Your task to perform on an android device: Open Youtube and go to "Your channel" Image 0: 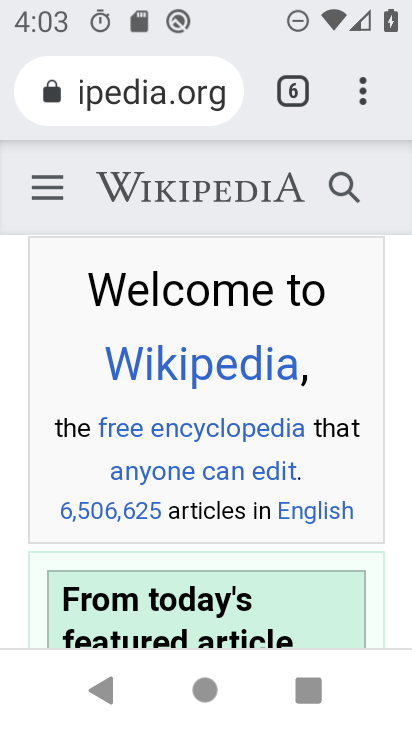
Step 0: press home button
Your task to perform on an android device: Open Youtube and go to "Your channel" Image 1: 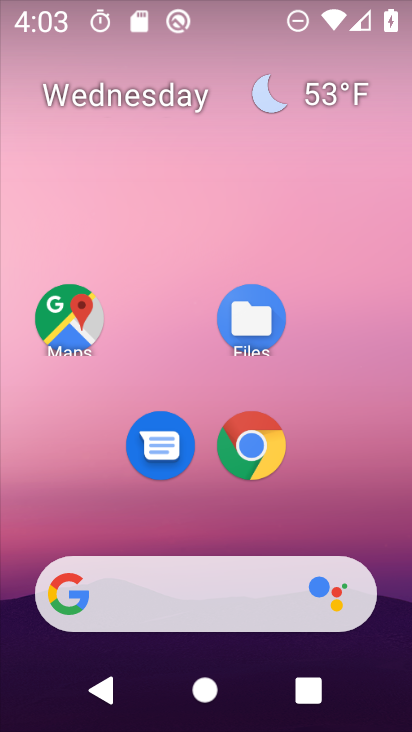
Step 1: drag from (347, 508) to (326, 218)
Your task to perform on an android device: Open Youtube and go to "Your channel" Image 2: 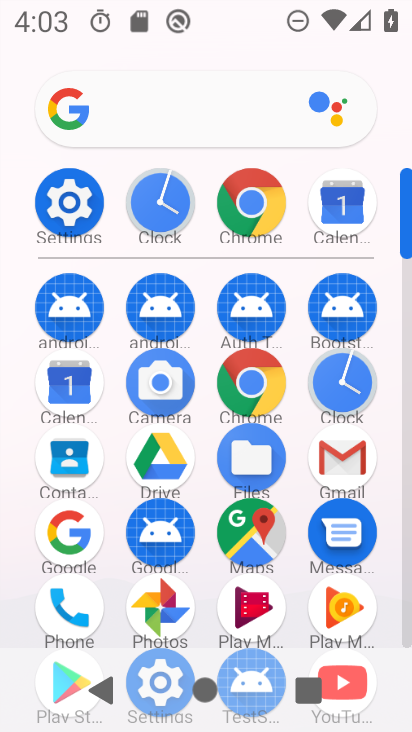
Step 2: click (321, 220)
Your task to perform on an android device: Open Youtube and go to "Your channel" Image 3: 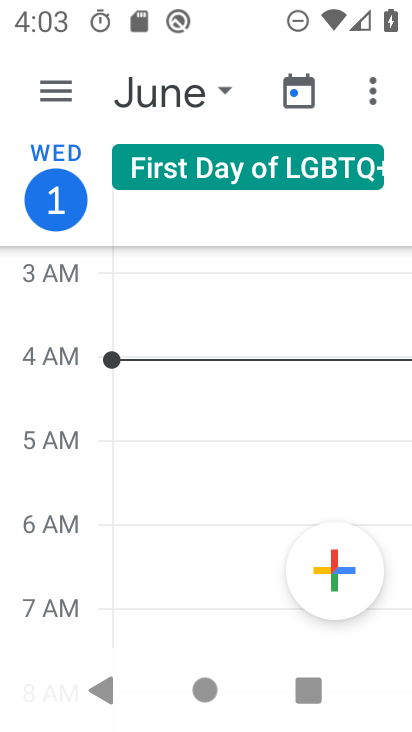
Step 3: press back button
Your task to perform on an android device: Open Youtube and go to "Your channel" Image 4: 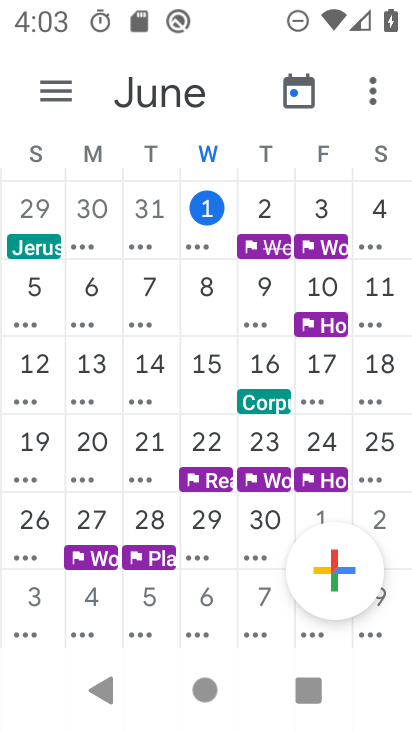
Step 4: press back button
Your task to perform on an android device: Open Youtube and go to "Your channel" Image 5: 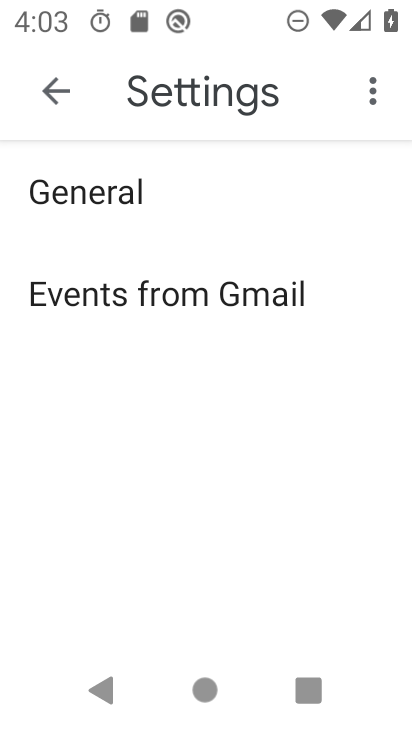
Step 5: press back button
Your task to perform on an android device: Open Youtube and go to "Your channel" Image 6: 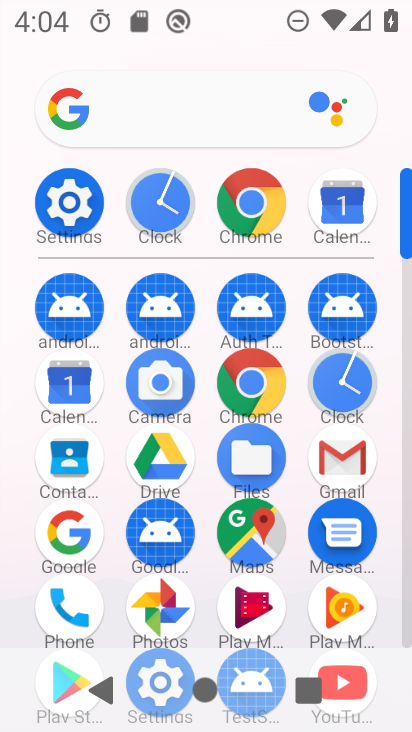
Step 6: click (402, 588)
Your task to perform on an android device: Open Youtube and go to "Your channel" Image 7: 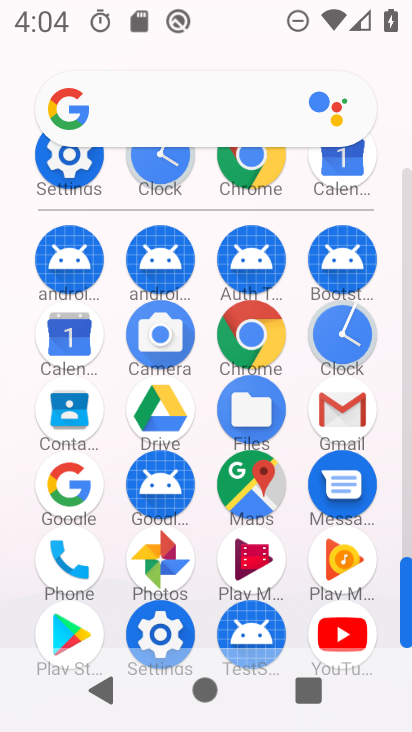
Step 7: click (338, 629)
Your task to perform on an android device: Open Youtube and go to "Your channel" Image 8: 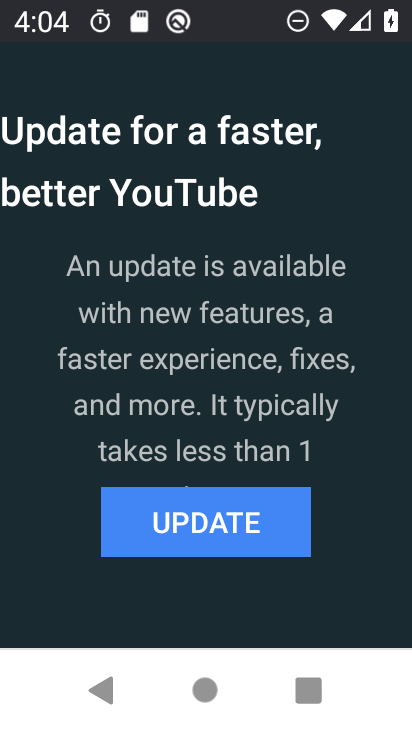
Step 8: click (248, 531)
Your task to perform on an android device: Open Youtube and go to "Your channel" Image 9: 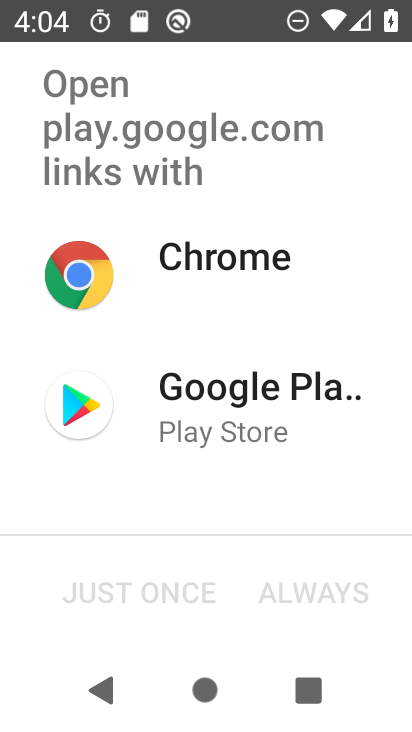
Step 9: click (227, 407)
Your task to perform on an android device: Open Youtube and go to "Your channel" Image 10: 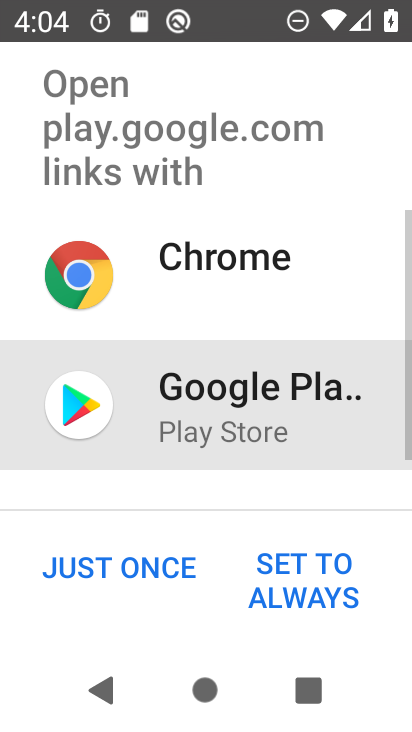
Step 10: click (272, 584)
Your task to perform on an android device: Open Youtube and go to "Your channel" Image 11: 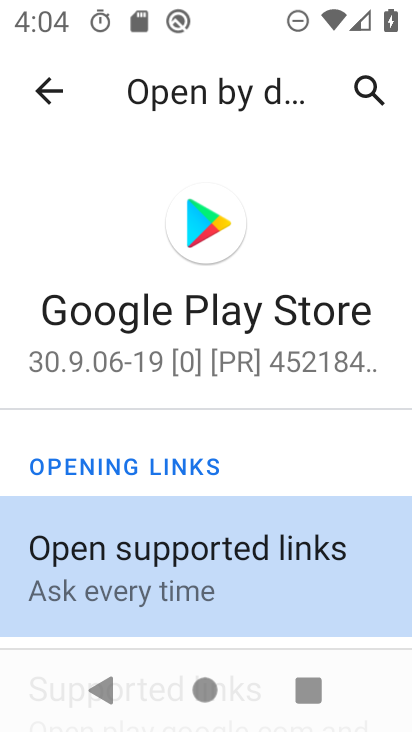
Step 11: click (258, 528)
Your task to perform on an android device: Open Youtube and go to "Your channel" Image 12: 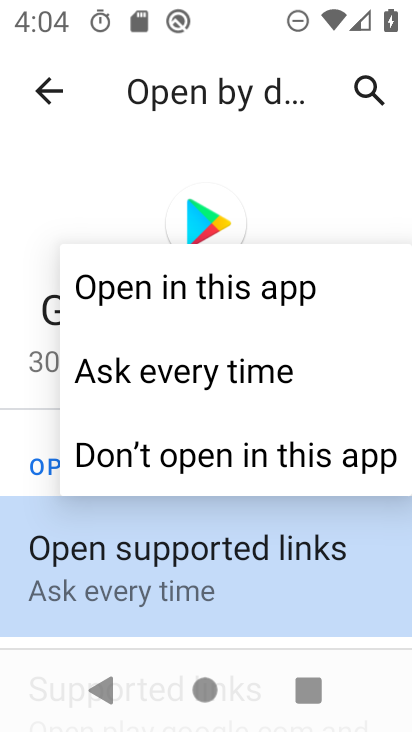
Step 12: click (203, 296)
Your task to perform on an android device: Open Youtube and go to "Your channel" Image 13: 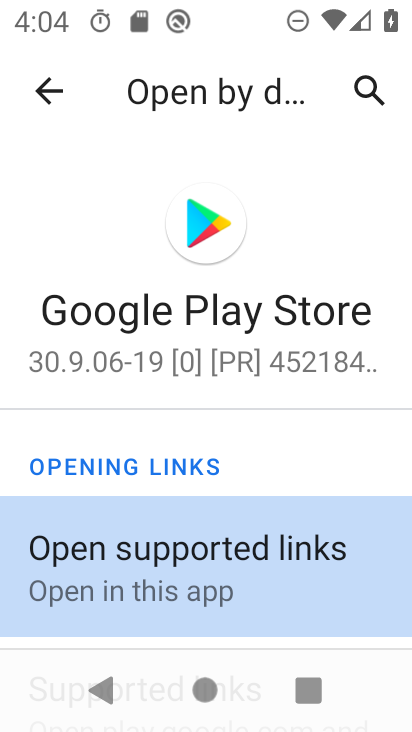
Step 13: click (159, 568)
Your task to perform on an android device: Open Youtube and go to "Your channel" Image 14: 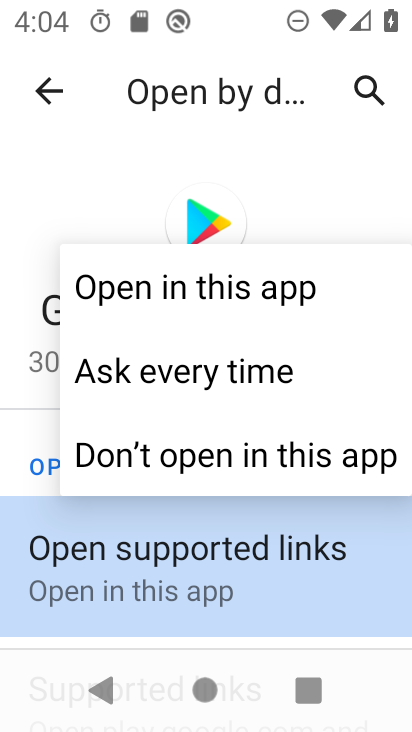
Step 14: click (159, 568)
Your task to perform on an android device: Open Youtube and go to "Your channel" Image 15: 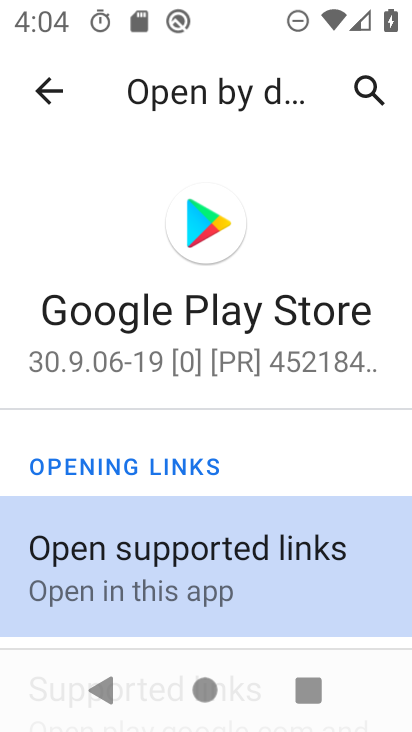
Step 15: drag from (158, 574) to (172, 319)
Your task to perform on an android device: Open Youtube and go to "Your channel" Image 16: 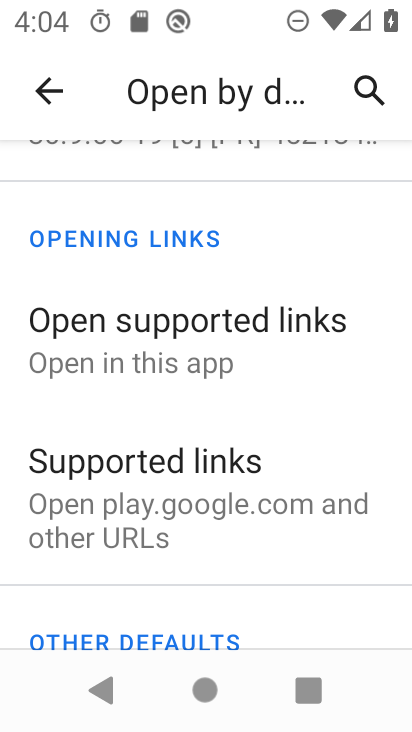
Step 16: drag from (216, 582) to (183, 321)
Your task to perform on an android device: Open Youtube and go to "Your channel" Image 17: 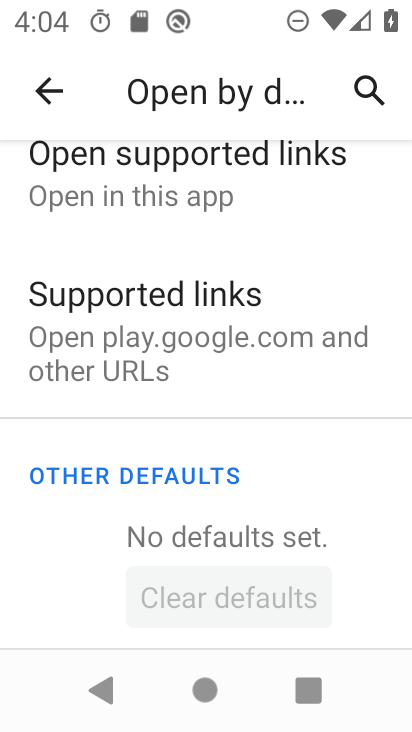
Step 17: press back button
Your task to perform on an android device: Open Youtube and go to "Your channel" Image 18: 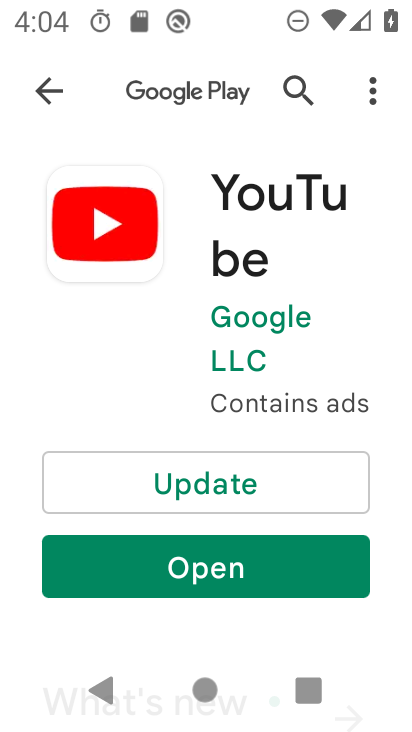
Step 18: click (182, 464)
Your task to perform on an android device: Open Youtube and go to "Your channel" Image 19: 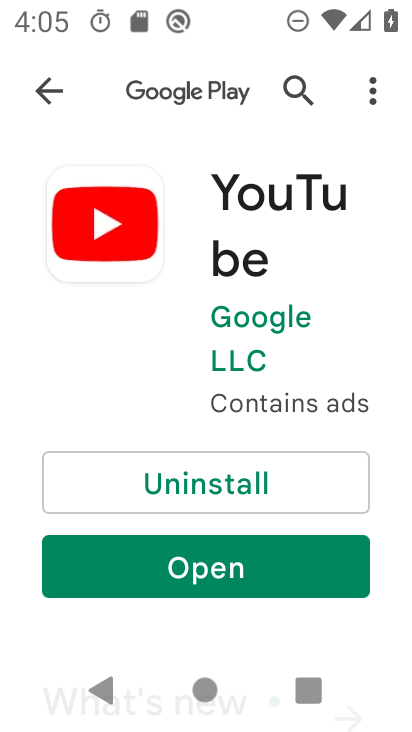
Step 19: click (129, 571)
Your task to perform on an android device: Open Youtube and go to "Your channel" Image 20: 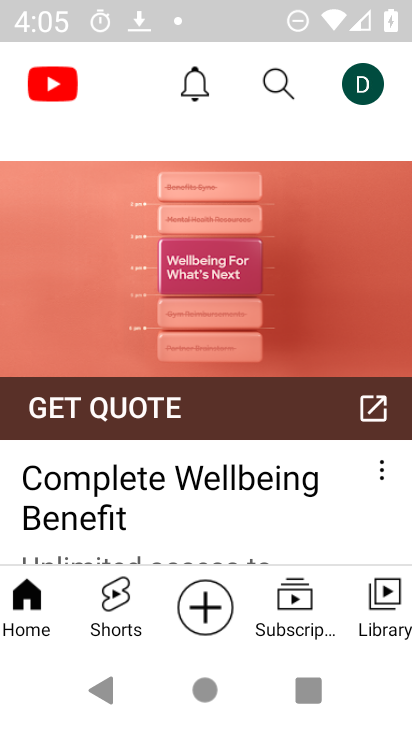
Step 20: click (375, 100)
Your task to perform on an android device: Open Youtube and go to "Your channel" Image 21: 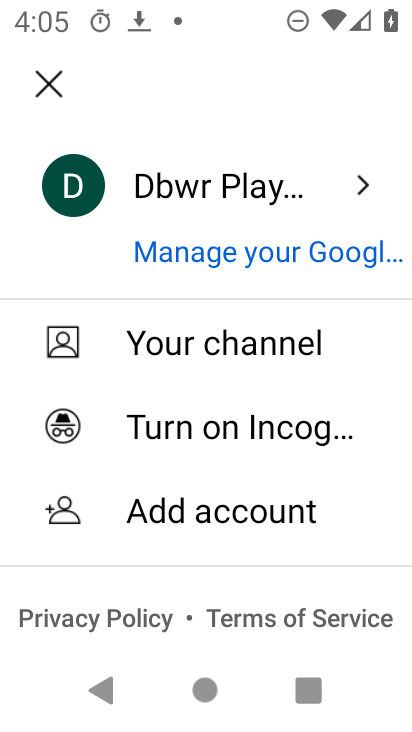
Step 21: click (265, 332)
Your task to perform on an android device: Open Youtube and go to "Your channel" Image 22: 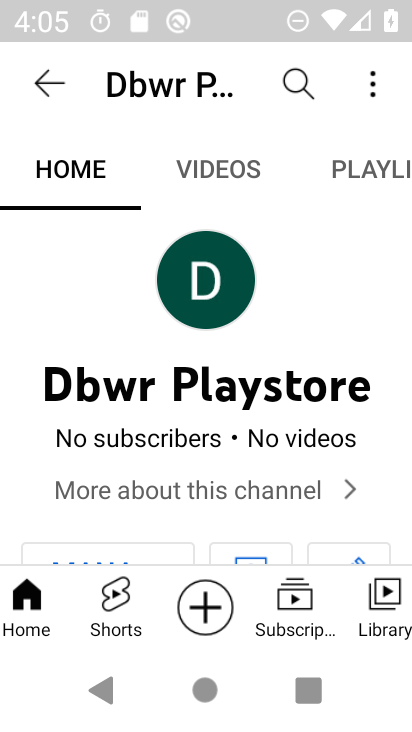
Step 22: task complete